Your task to perform on an android device: turn pop-ups off in chrome Image 0: 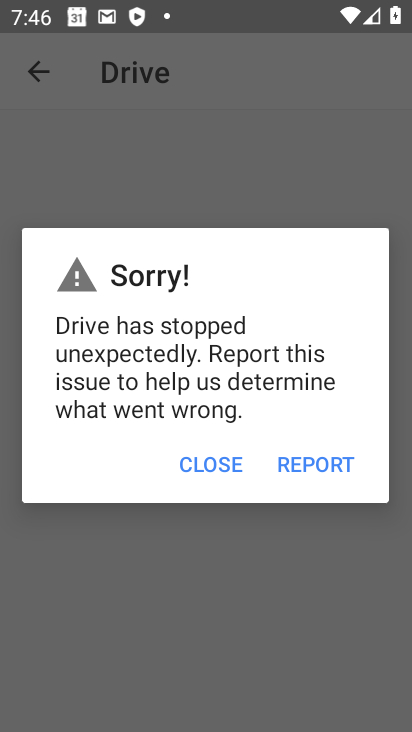
Step 0: press home button
Your task to perform on an android device: turn pop-ups off in chrome Image 1: 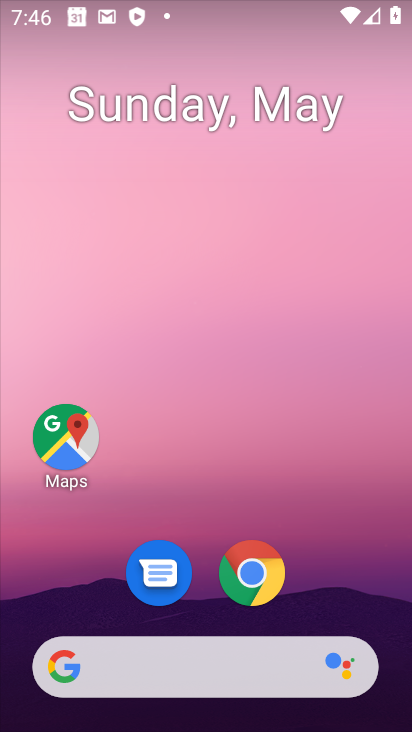
Step 1: click (245, 572)
Your task to perform on an android device: turn pop-ups off in chrome Image 2: 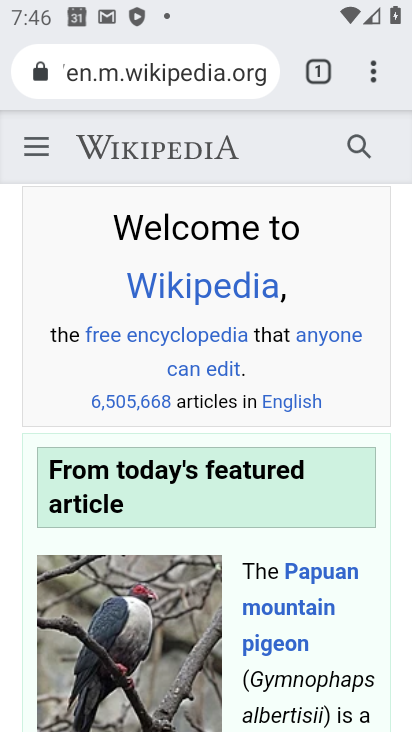
Step 2: click (372, 75)
Your task to perform on an android device: turn pop-ups off in chrome Image 3: 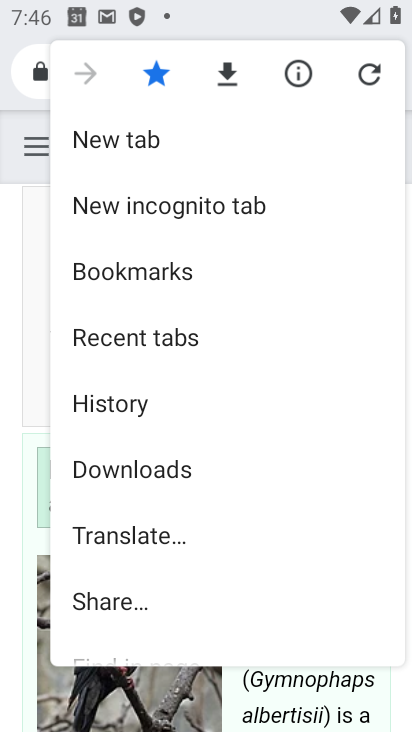
Step 3: drag from (250, 402) to (257, 87)
Your task to perform on an android device: turn pop-ups off in chrome Image 4: 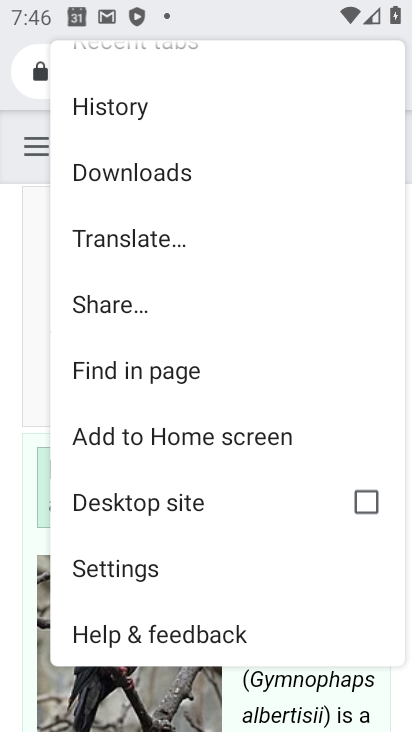
Step 4: click (144, 571)
Your task to perform on an android device: turn pop-ups off in chrome Image 5: 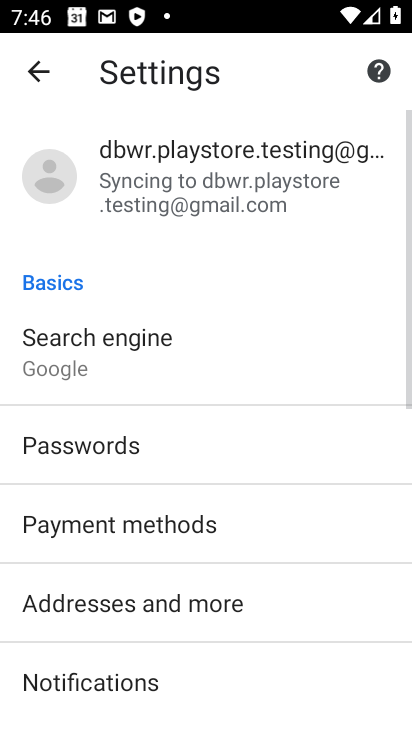
Step 5: drag from (225, 553) to (276, 179)
Your task to perform on an android device: turn pop-ups off in chrome Image 6: 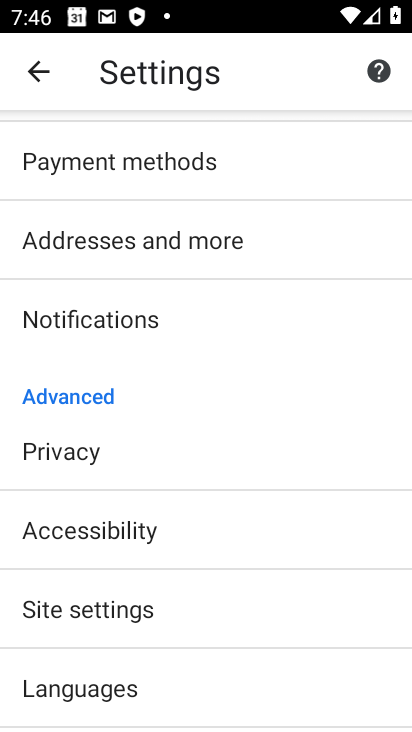
Step 6: click (183, 597)
Your task to perform on an android device: turn pop-ups off in chrome Image 7: 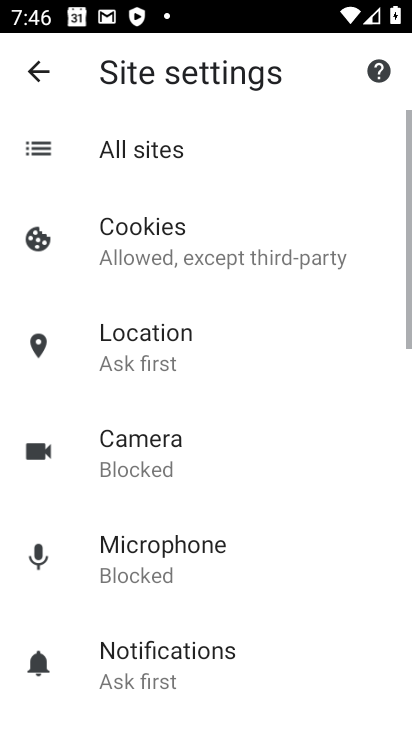
Step 7: drag from (227, 608) to (294, 126)
Your task to perform on an android device: turn pop-ups off in chrome Image 8: 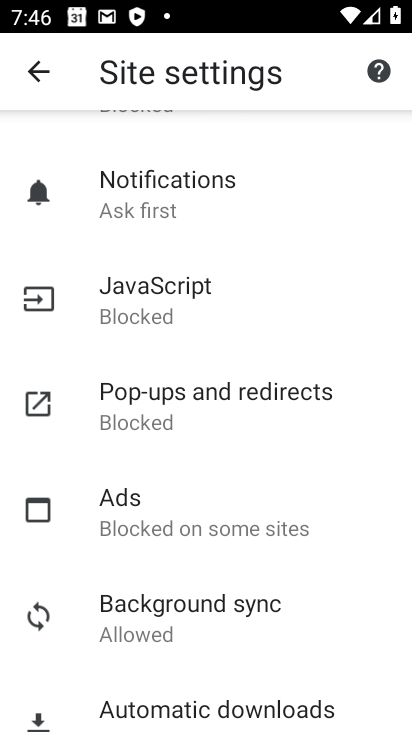
Step 8: click (235, 409)
Your task to perform on an android device: turn pop-ups off in chrome Image 9: 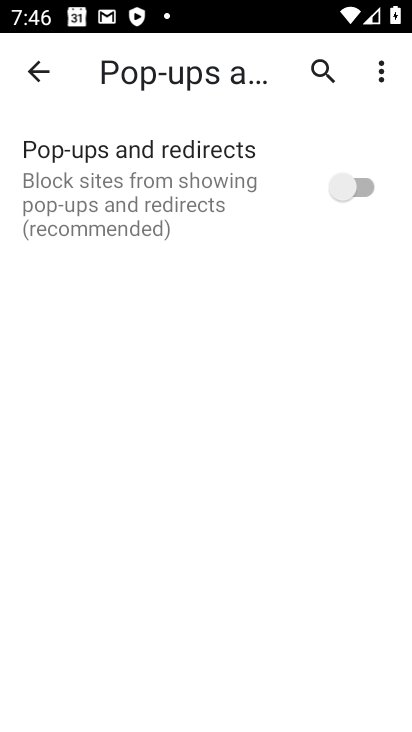
Step 9: task complete